Your task to perform on an android device: Open display settings Image 0: 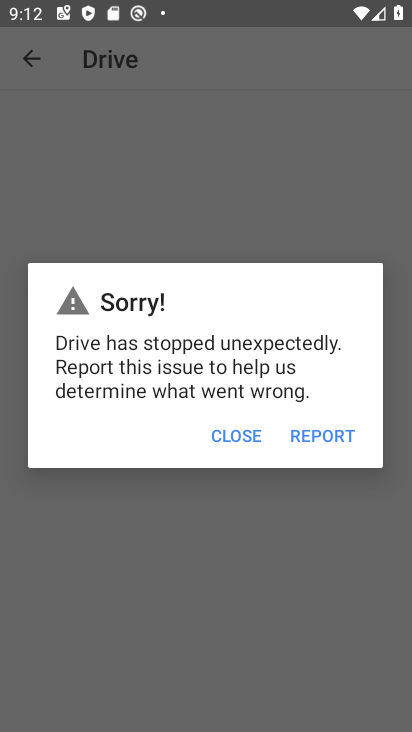
Step 0: press home button
Your task to perform on an android device: Open display settings Image 1: 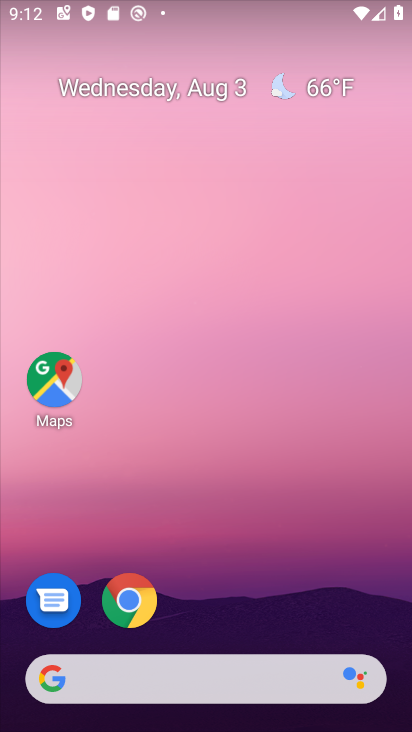
Step 1: drag from (239, 592) to (259, 0)
Your task to perform on an android device: Open display settings Image 2: 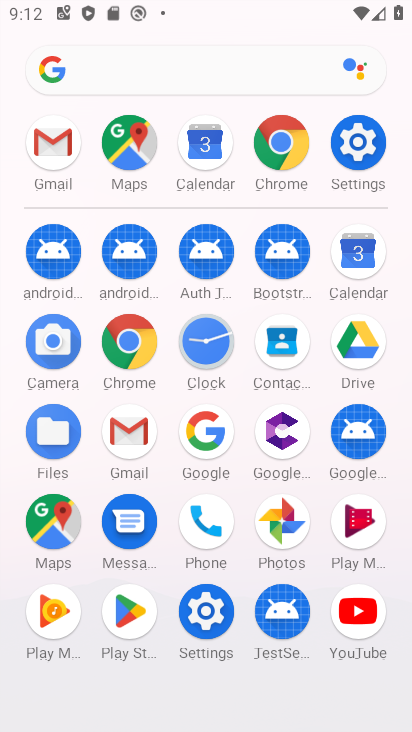
Step 2: click (204, 628)
Your task to perform on an android device: Open display settings Image 3: 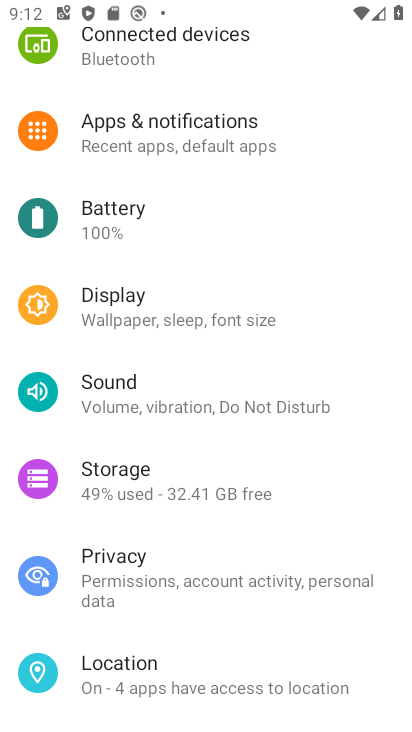
Step 3: click (134, 312)
Your task to perform on an android device: Open display settings Image 4: 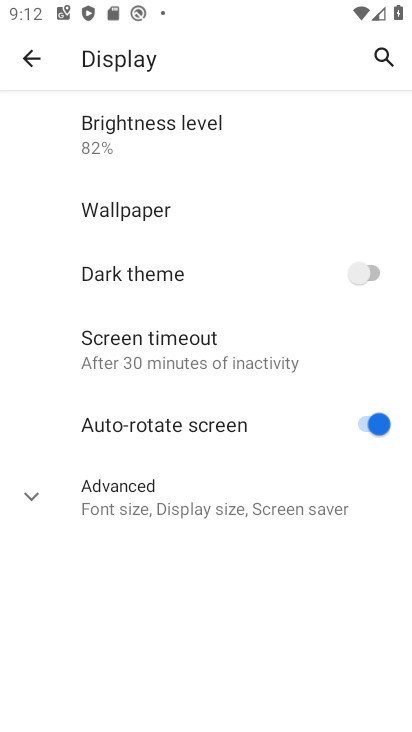
Step 4: task complete